Your task to perform on an android device: open wifi settings Image 0: 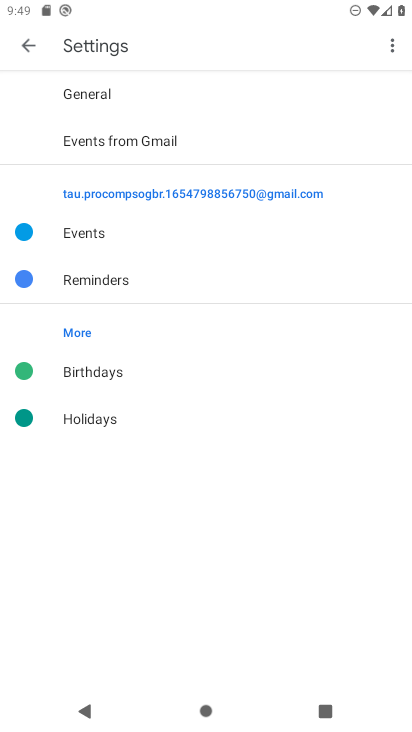
Step 0: drag from (214, 9) to (264, 625)
Your task to perform on an android device: open wifi settings Image 1: 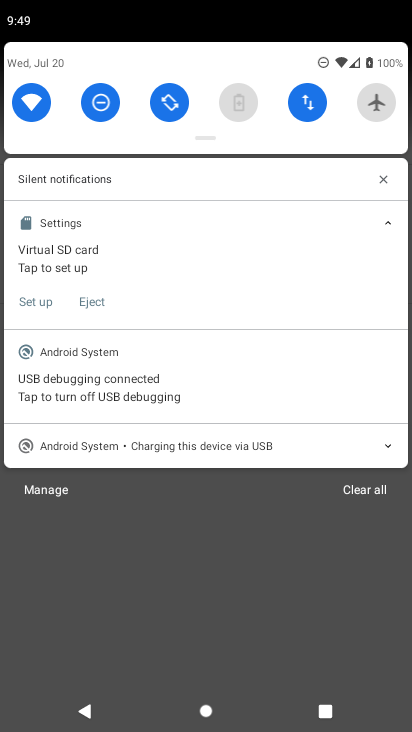
Step 1: click (39, 93)
Your task to perform on an android device: open wifi settings Image 2: 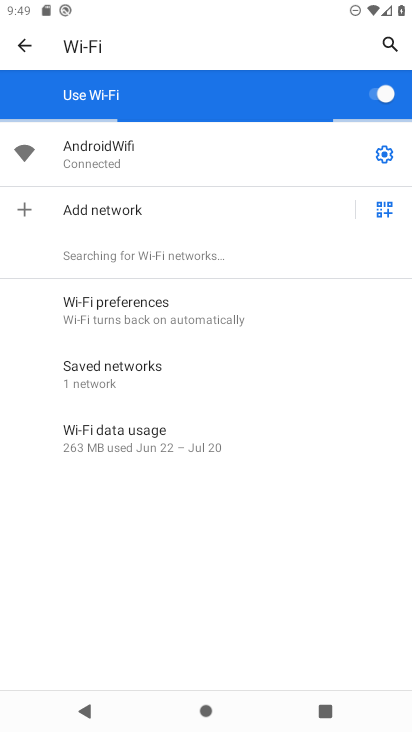
Step 2: task complete